Your task to perform on an android device: Go to eBay Image 0: 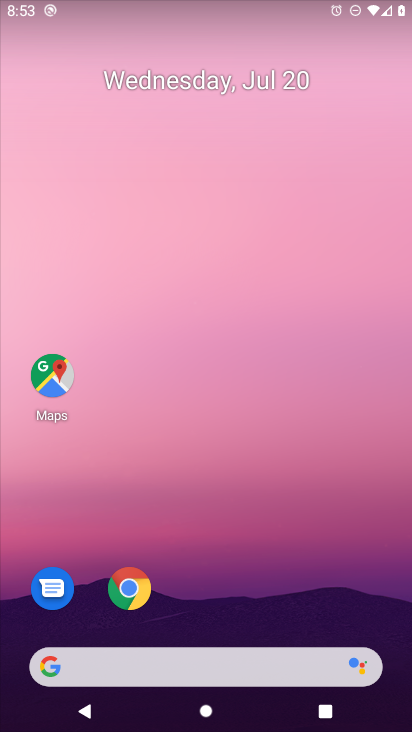
Step 0: click (88, 666)
Your task to perform on an android device: Go to eBay Image 1: 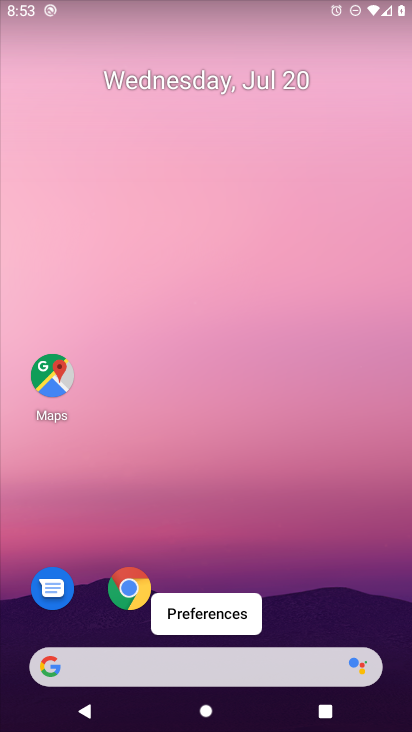
Step 1: click (91, 661)
Your task to perform on an android device: Go to eBay Image 2: 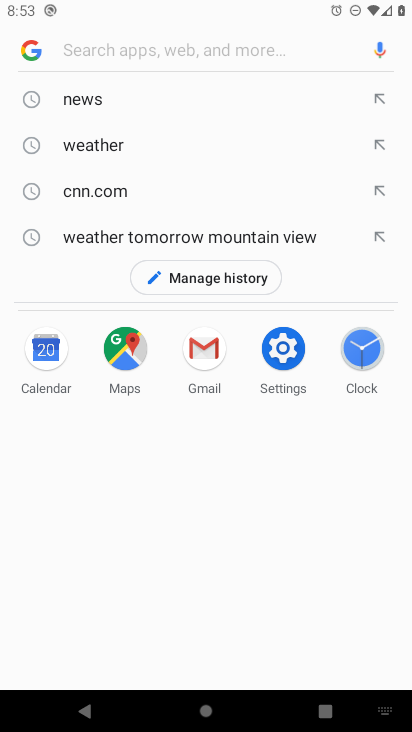
Step 2: type "eBay"
Your task to perform on an android device: Go to eBay Image 3: 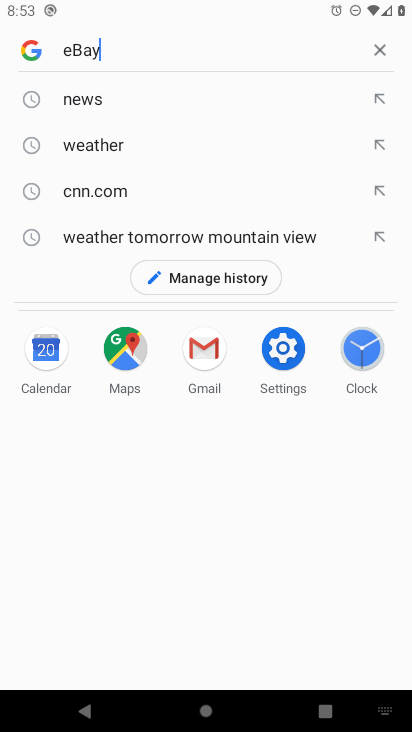
Step 3: type ""
Your task to perform on an android device: Go to eBay Image 4: 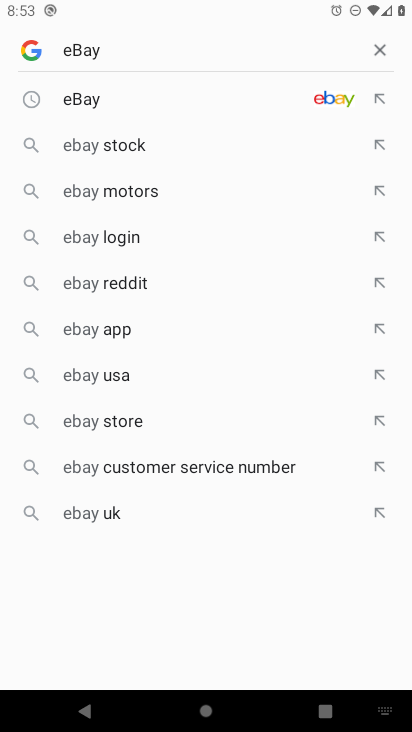
Step 4: click (98, 103)
Your task to perform on an android device: Go to eBay Image 5: 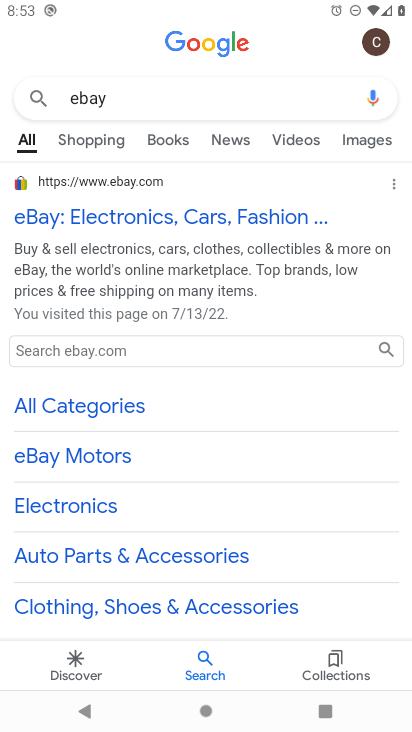
Step 5: task complete